Your task to perform on an android device: Go to CNN.com Image 0: 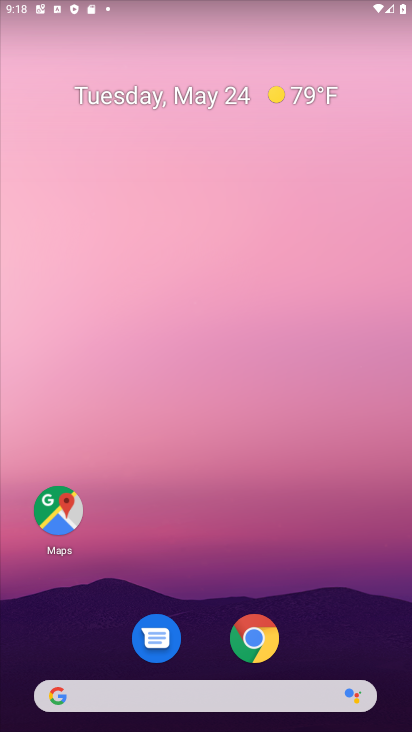
Step 0: click (211, 694)
Your task to perform on an android device: Go to CNN.com Image 1: 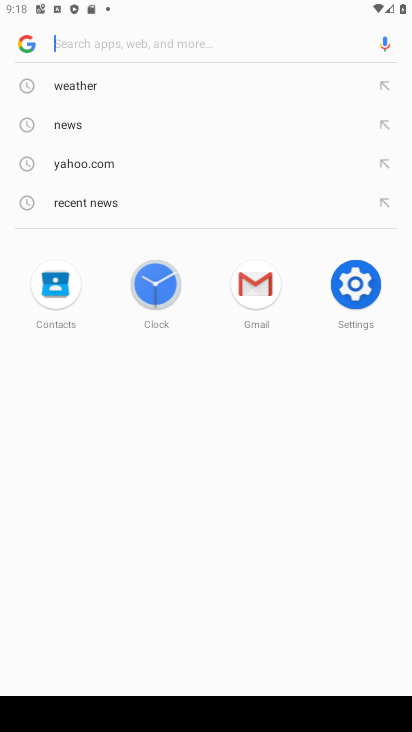
Step 1: type "cnn.com"
Your task to perform on an android device: Go to CNN.com Image 2: 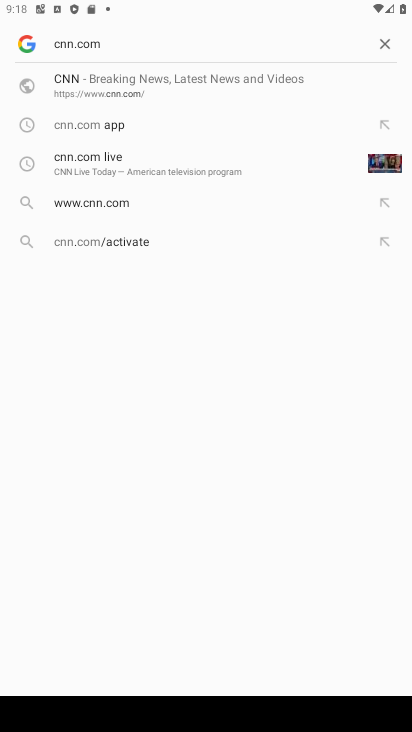
Step 2: click (279, 80)
Your task to perform on an android device: Go to CNN.com Image 3: 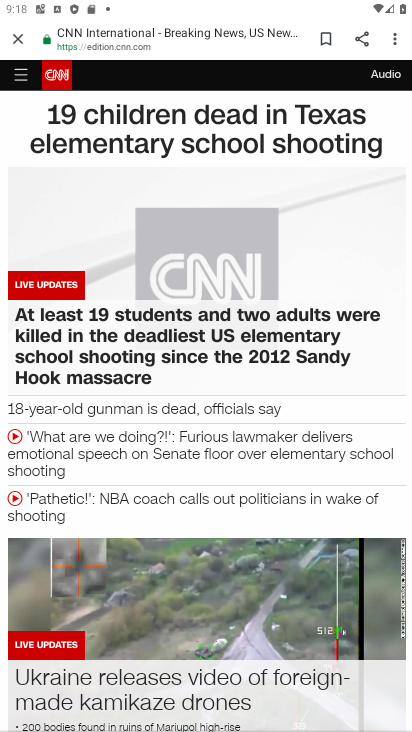
Step 3: task complete